Your task to perform on an android device: change text size in settings app Image 0: 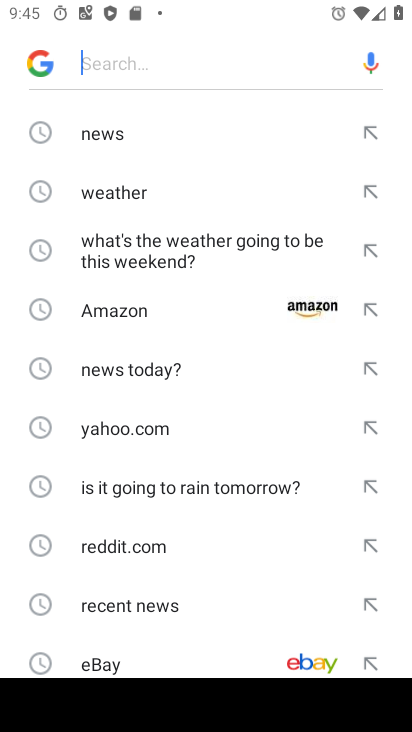
Step 0: press home button
Your task to perform on an android device: change text size in settings app Image 1: 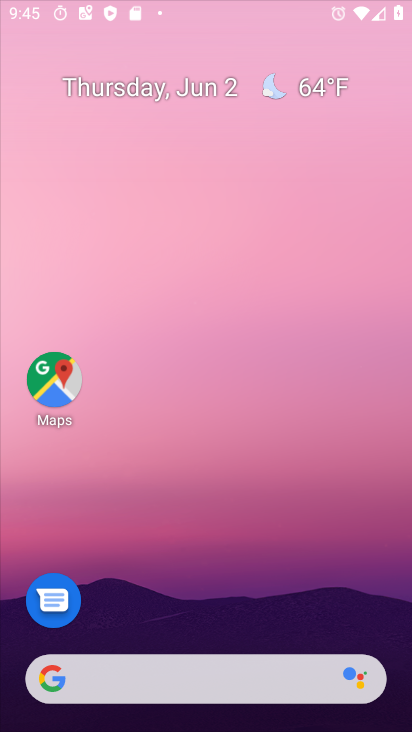
Step 1: drag from (215, 591) to (242, 69)
Your task to perform on an android device: change text size in settings app Image 2: 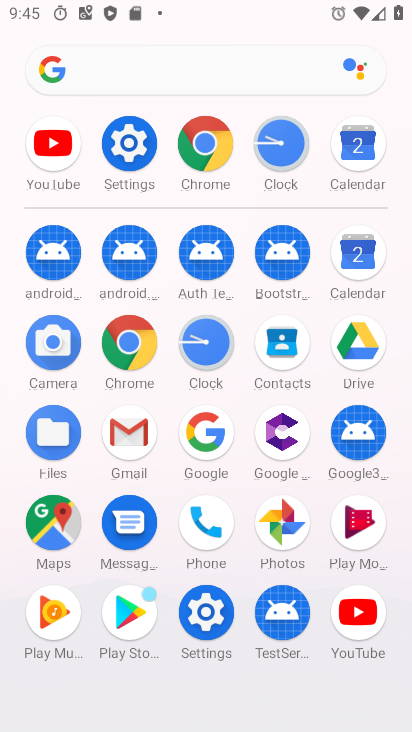
Step 2: click (131, 147)
Your task to perform on an android device: change text size in settings app Image 3: 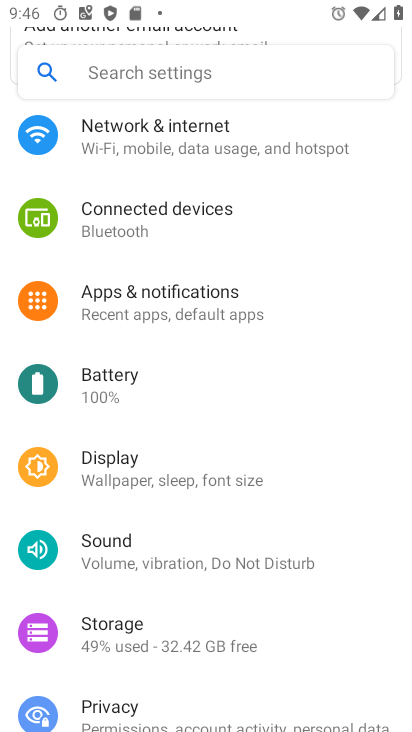
Step 3: click (179, 463)
Your task to perform on an android device: change text size in settings app Image 4: 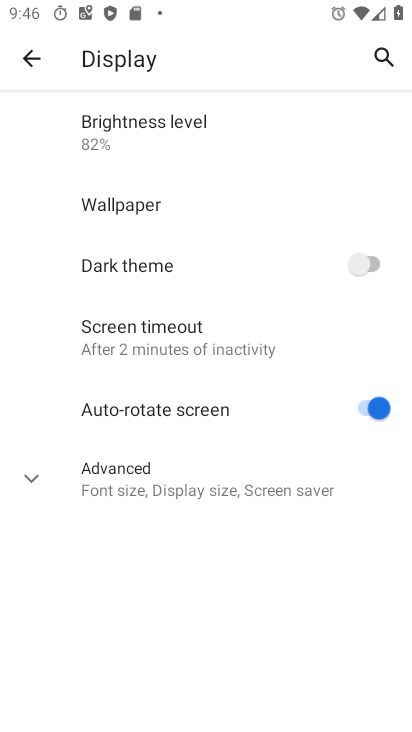
Step 4: click (124, 477)
Your task to perform on an android device: change text size in settings app Image 5: 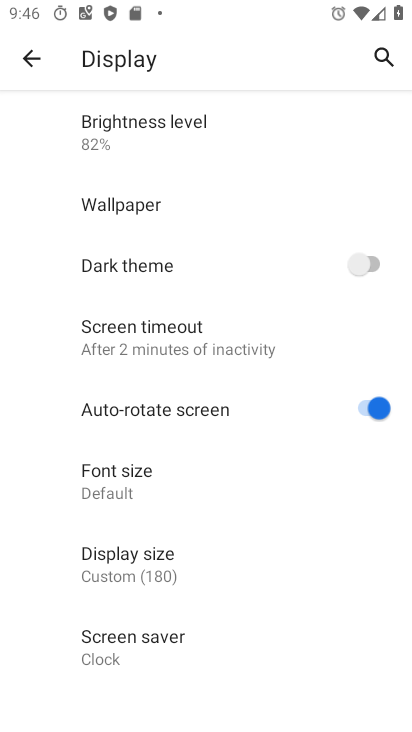
Step 5: click (124, 477)
Your task to perform on an android device: change text size in settings app Image 6: 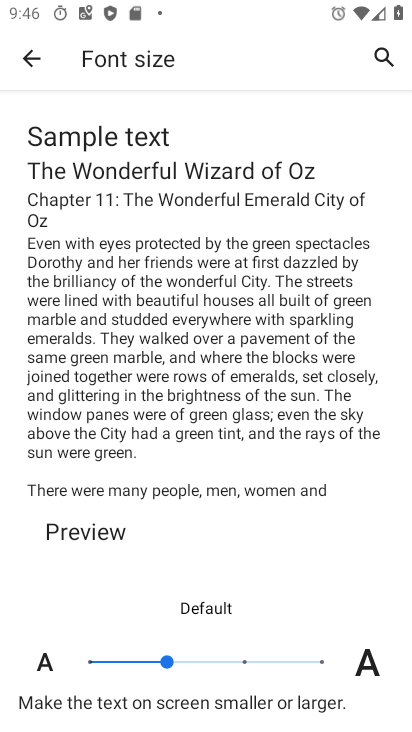
Step 6: task complete